Your task to perform on an android device: Open settings Image 0: 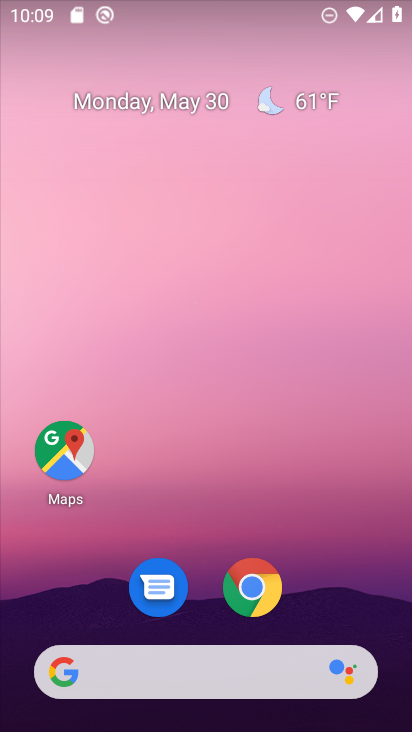
Step 0: drag from (212, 643) to (259, 51)
Your task to perform on an android device: Open settings Image 1: 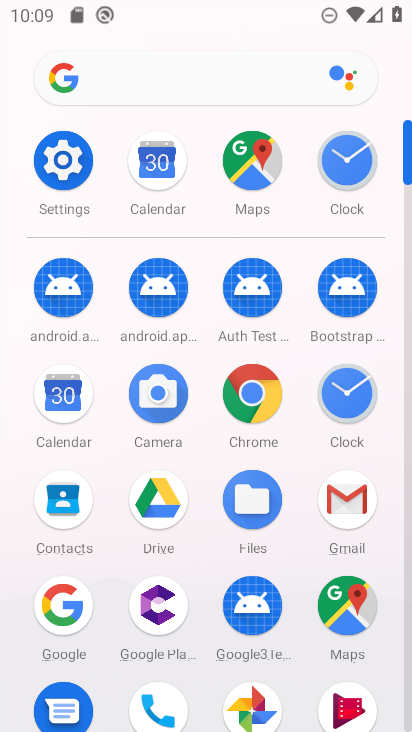
Step 1: click (53, 165)
Your task to perform on an android device: Open settings Image 2: 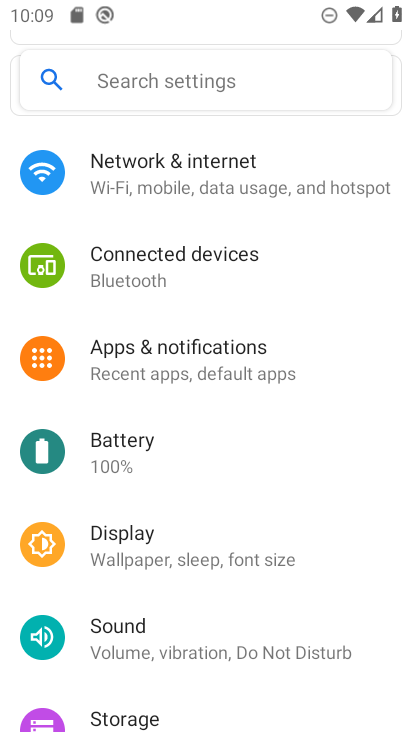
Step 2: task complete